Your task to perform on an android device: turn on notifications settings in the gmail app Image 0: 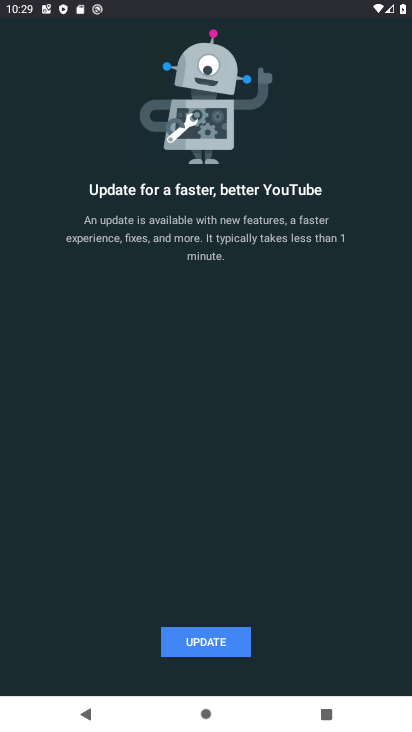
Step 0: press home button
Your task to perform on an android device: turn on notifications settings in the gmail app Image 1: 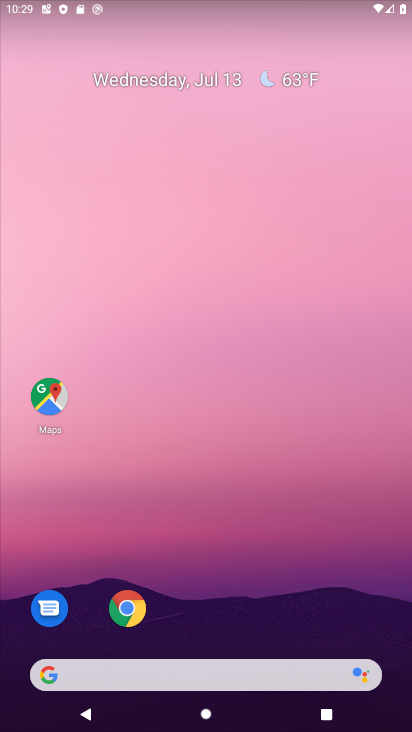
Step 1: drag from (230, 522) to (257, 124)
Your task to perform on an android device: turn on notifications settings in the gmail app Image 2: 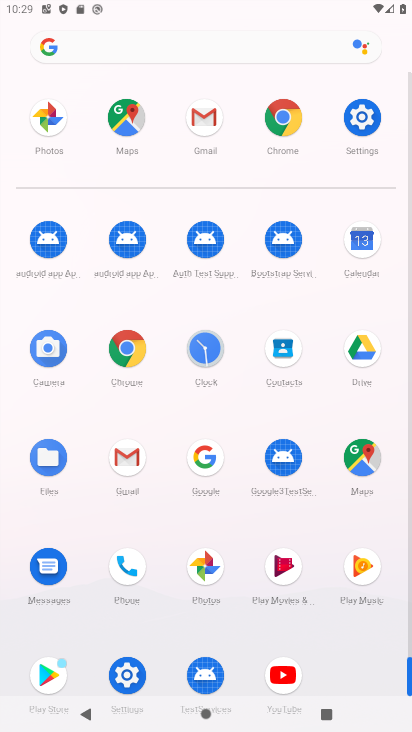
Step 2: click (115, 458)
Your task to perform on an android device: turn on notifications settings in the gmail app Image 3: 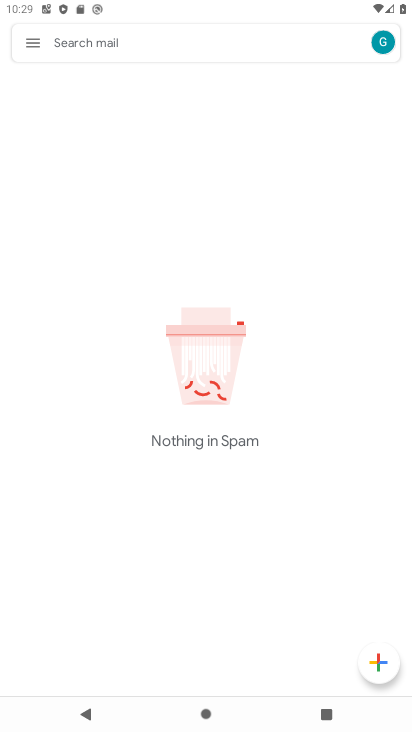
Step 3: press home button
Your task to perform on an android device: turn on notifications settings in the gmail app Image 4: 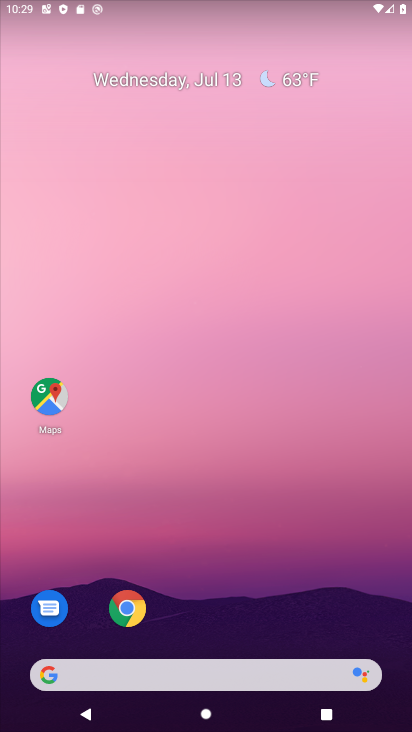
Step 4: drag from (238, 585) to (303, 51)
Your task to perform on an android device: turn on notifications settings in the gmail app Image 5: 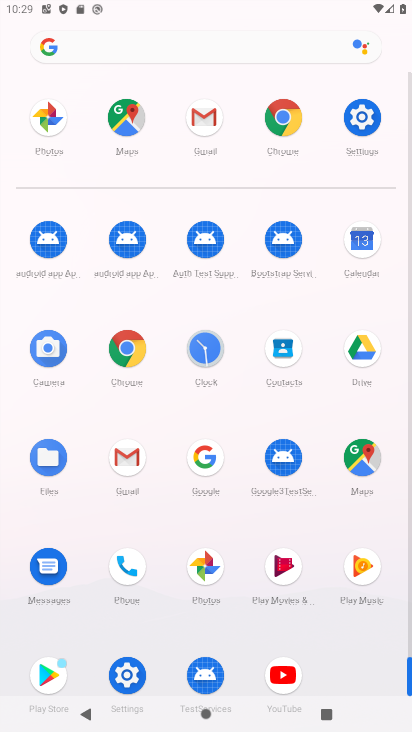
Step 5: click (125, 442)
Your task to perform on an android device: turn on notifications settings in the gmail app Image 6: 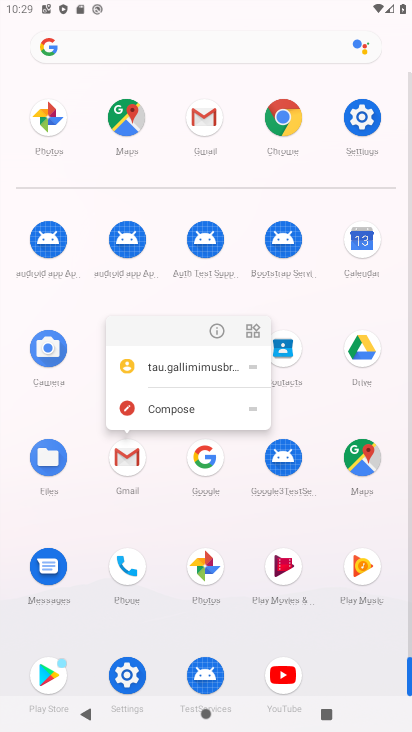
Step 6: click (219, 337)
Your task to perform on an android device: turn on notifications settings in the gmail app Image 7: 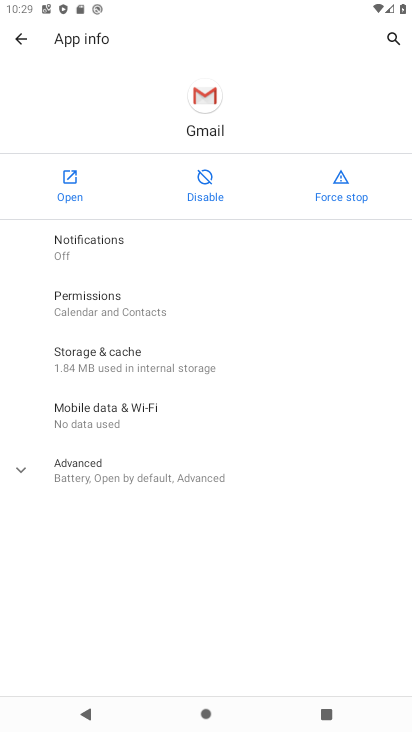
Step 7: click (105, 253)
Your task to perform on an android device: turn on notifications settings in the gmail app Image 8: 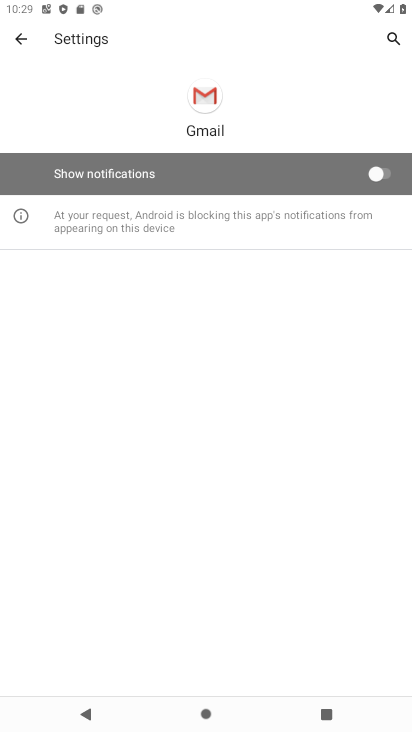
Step 8: click (306, 183)
Your task to perform on an android device: turn on notifications settings in the gmail app Image 9: 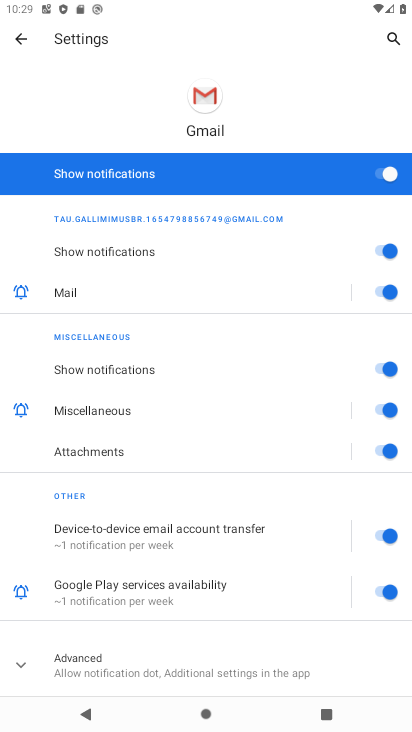
Step 9: task complete